Your task to perform on an android device: toggle priority inbox in the gmail app Image 0: 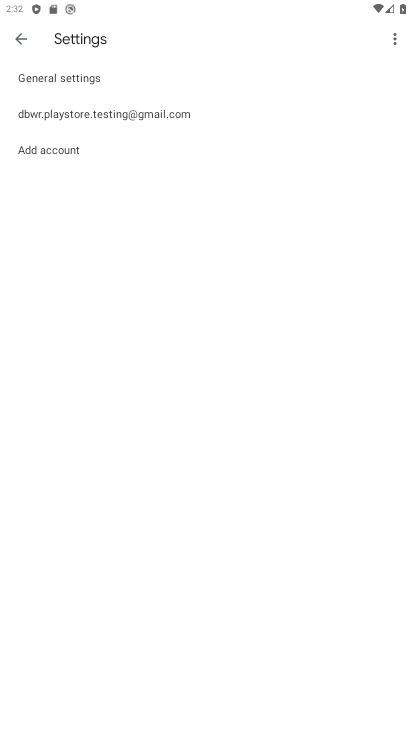
Step 0: press home button
Your task to perform on an android device: toggle priority inbox in the gmail app Image 1: 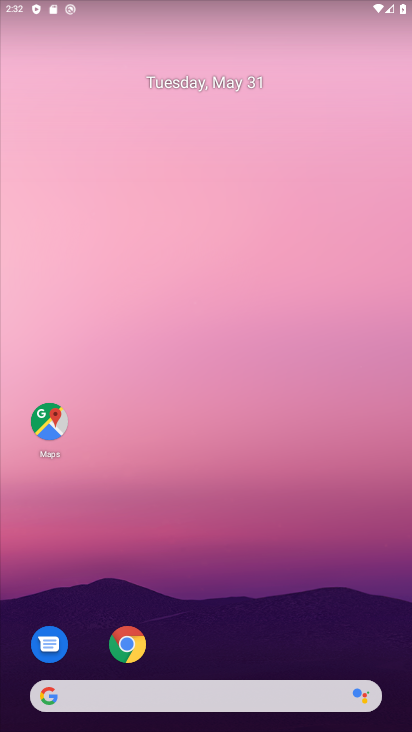
Step 1: drag from (133, 723) to (236, 44)
Your task to perform on an android device: toggle priority inbox in the gmail app Image 2: 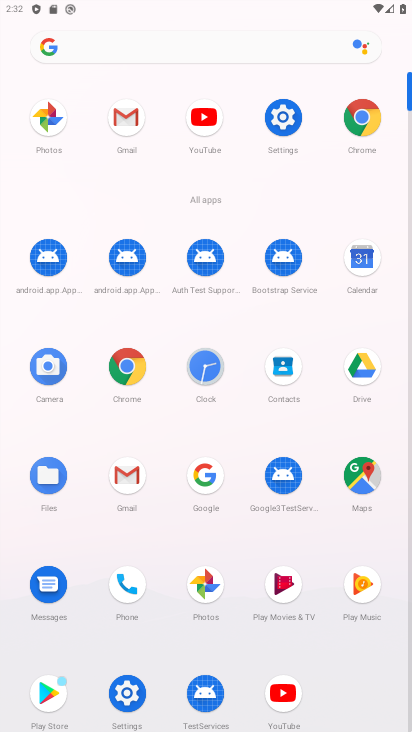
Step 2: click (120, 133)
Your task to perform on an android device: toggle priority inbox in the gmail app Image 3: 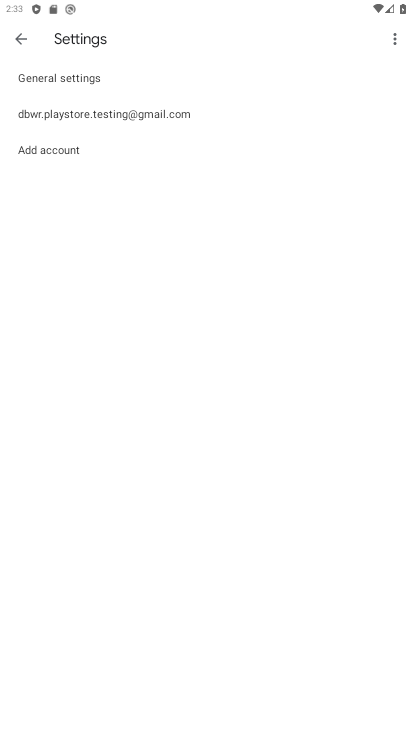
Step 3: click (14, 38)
Your task to perform on an android device: toggle priority inbox in the gmail app Image 4: 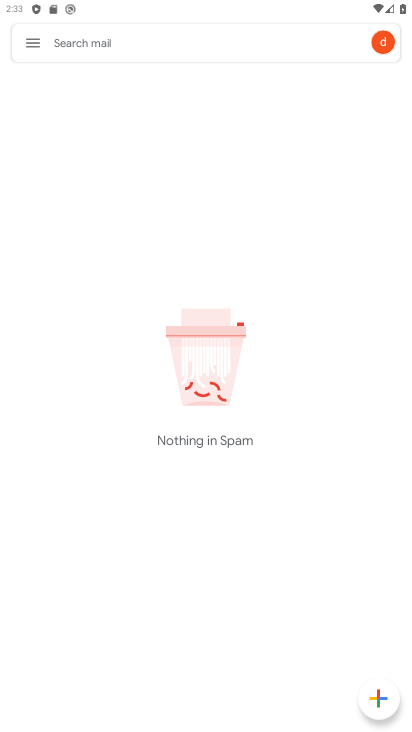
Step 4: click (27, 45)
Your task to perform on an android device: toggle priority inbox in the gmail app Image 5: 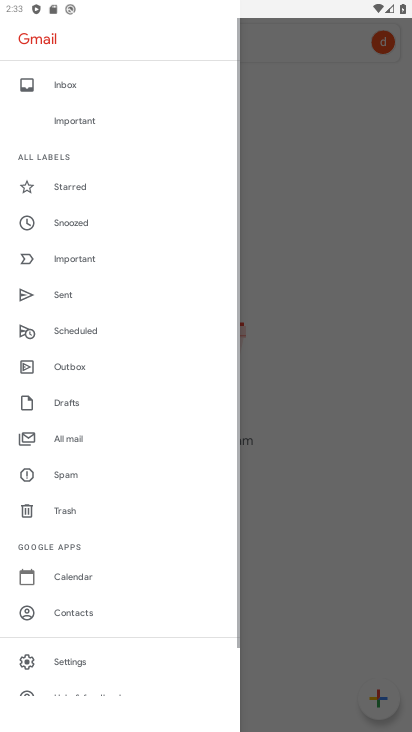
Step 5: click (72, 660)
Your task to perform on an android device: toggle priority inbox in the gmail app Image 6: 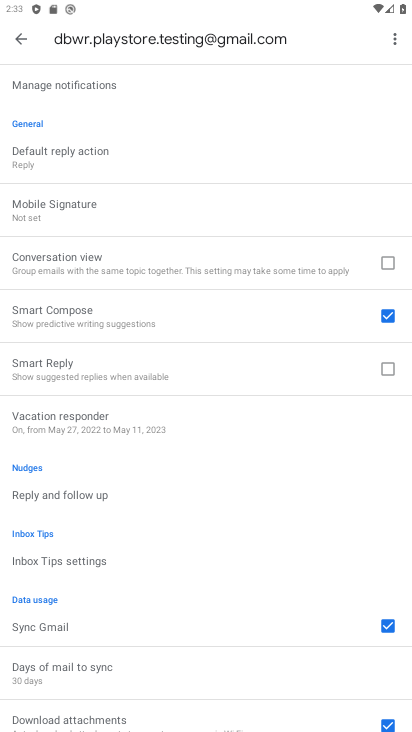
Step 6: drag from (155, 129) to (104, 706)
Your task to perform on an android device: toggle priority inbox in the gmail app Image 7: 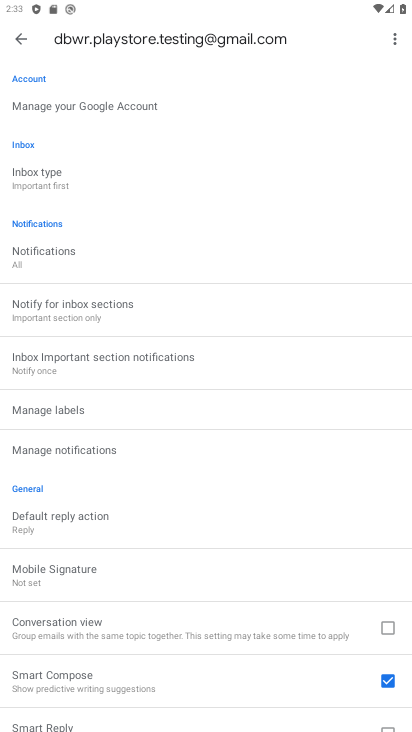
Step 7: click (83, 185)
Your task to perform on an android device: toggle priority inbox in the gmail app Image 8: 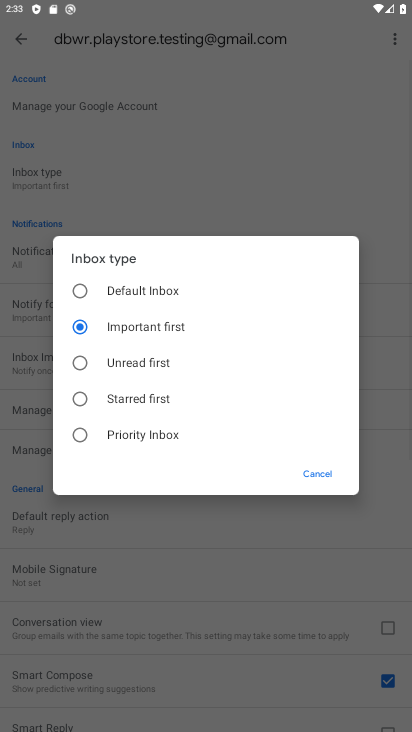
Step 8: click (112, 433)
Your task to perform on an android device: toggle priority inbox in the gmail app Image 9: 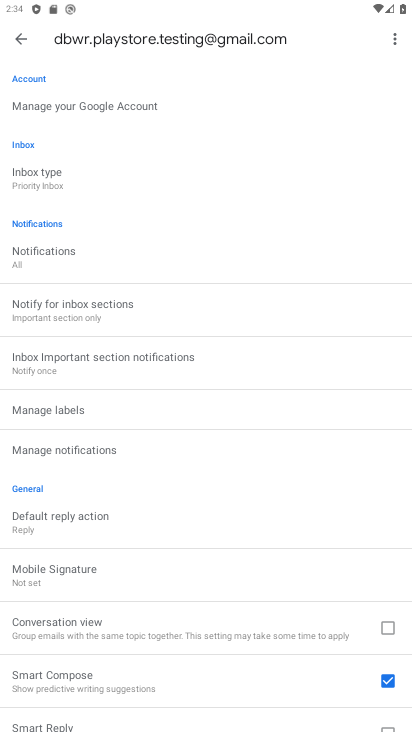
Step 9: task complete